Your task to perform on an android device: Open notification settings Image 0: 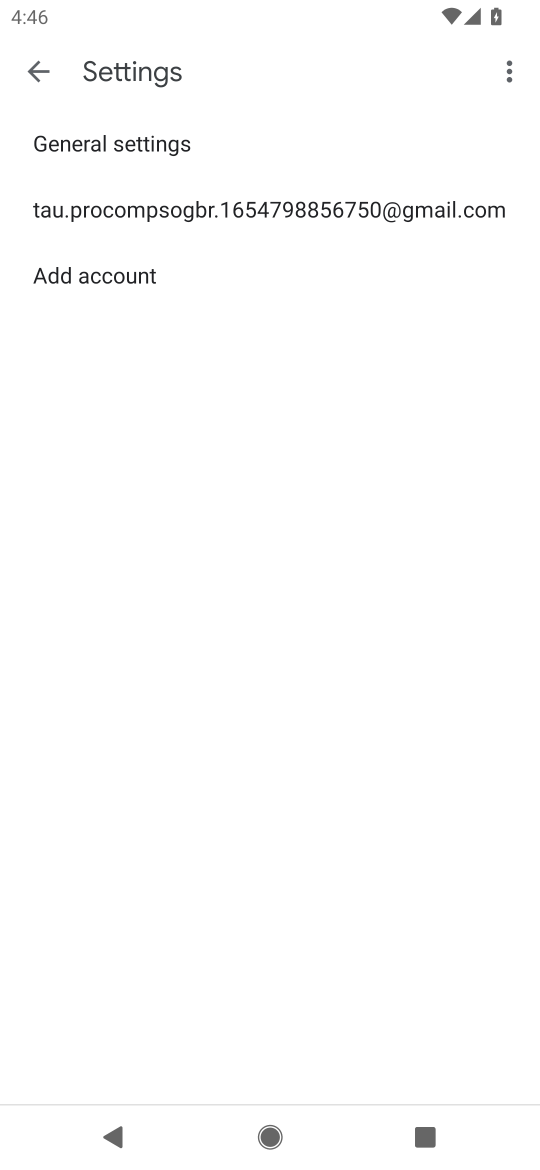
Step 0: press home button
Your task to perform on an android device: Open notification settings Image 1: 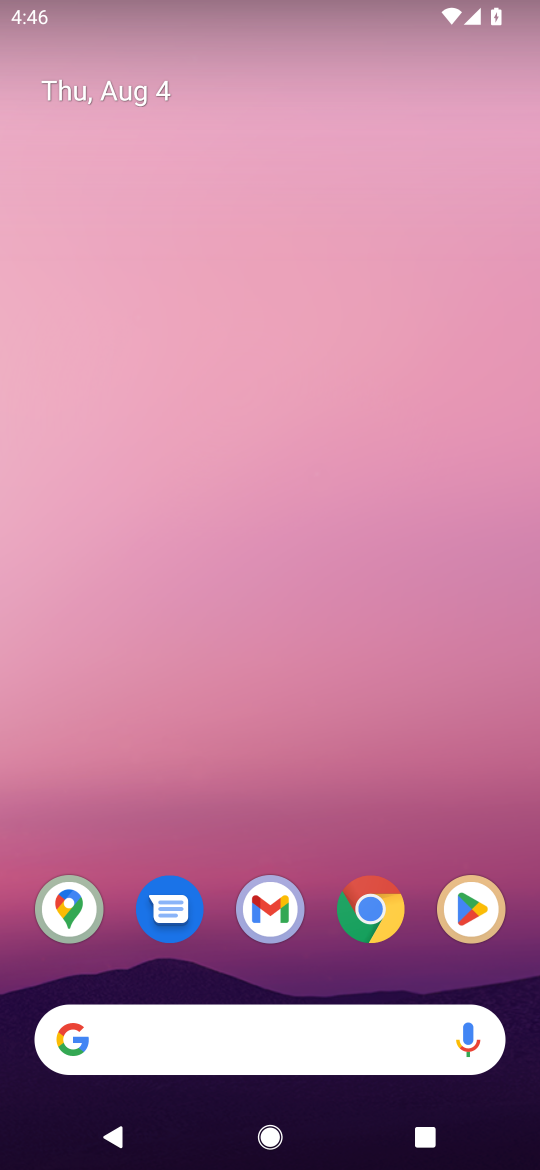
Step 1: drag from (191, 748) to (198, 24)
Your task to perform on an android device: Open notification settings Image 2: 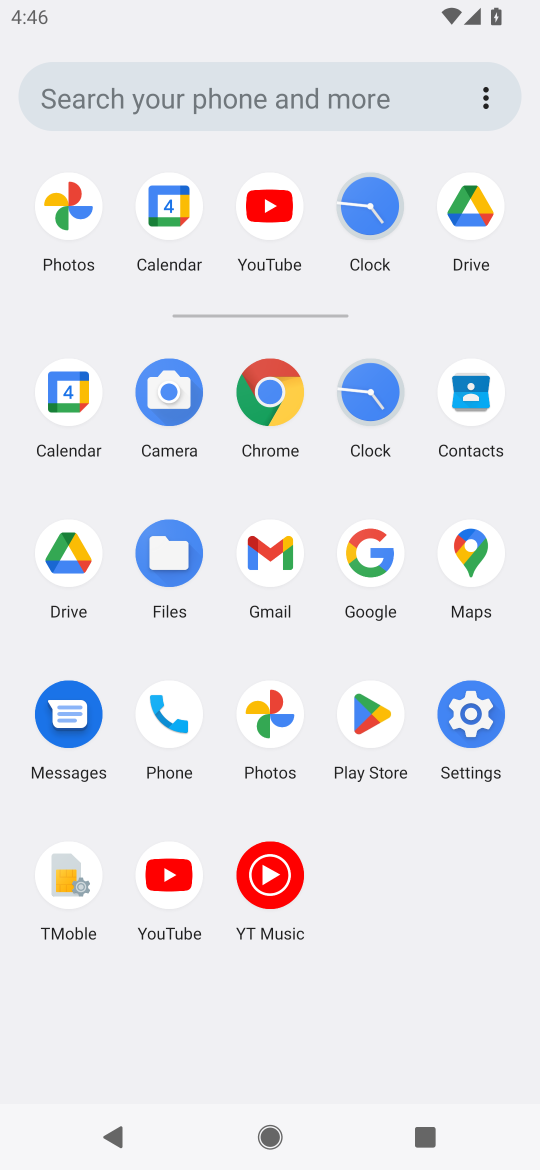
Step 2: click (468, 709)
Your task to perform on an android device: Open notification settings Image 3: 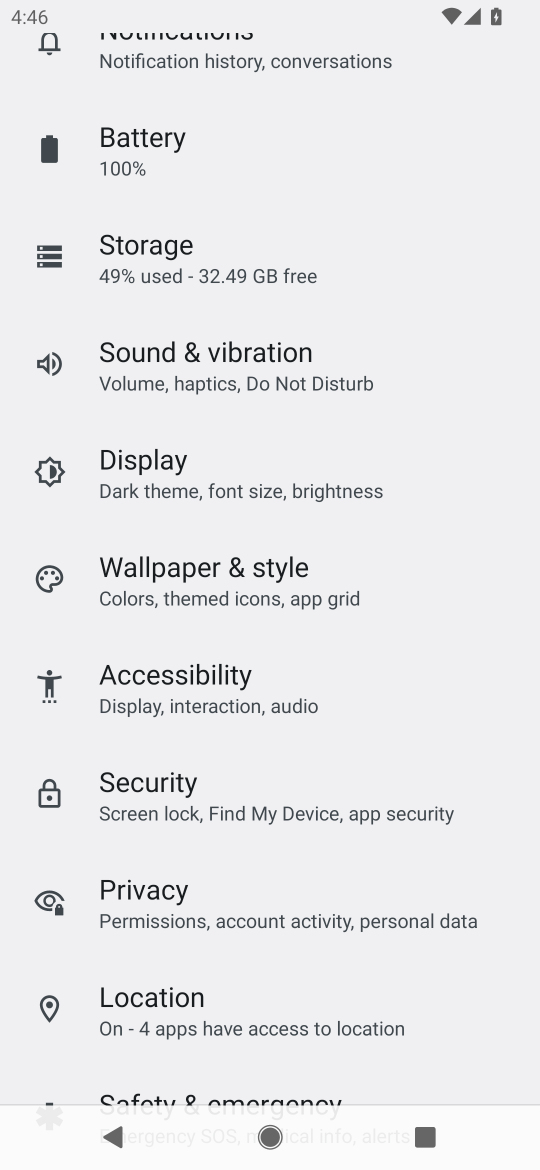
Step 3: click (205, 57)
Your task to perform on an android device: Open notification settings Image 4: 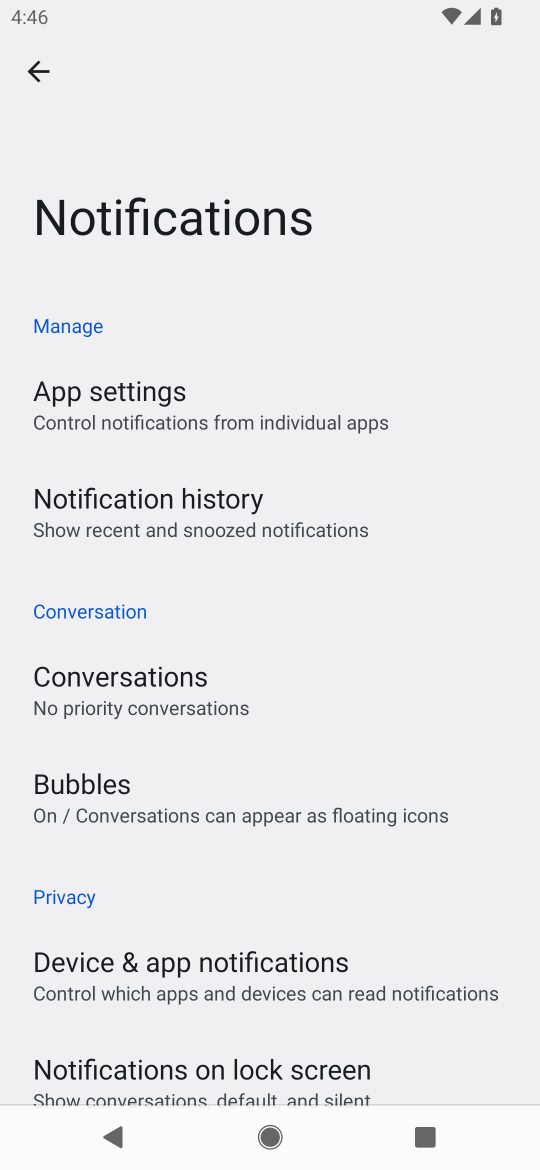
Step 4: task complete